Your task to perform on an android device: see creations saved in the google photos Image 0: 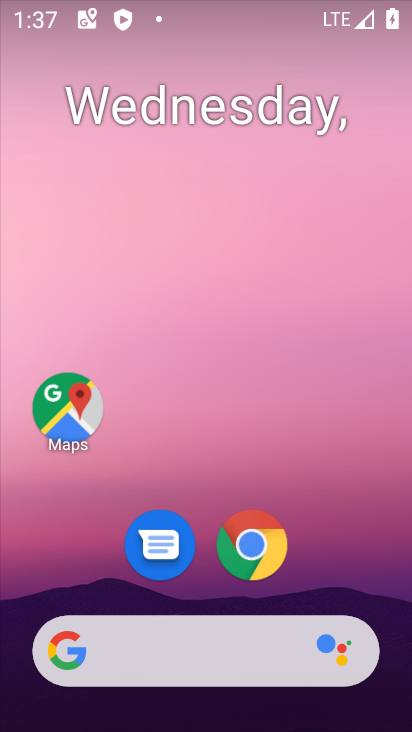
Step 0: drag from (347, 575) to (314, 169)
Your task to perform on an android device: see creations saved in the google photos Image 1: 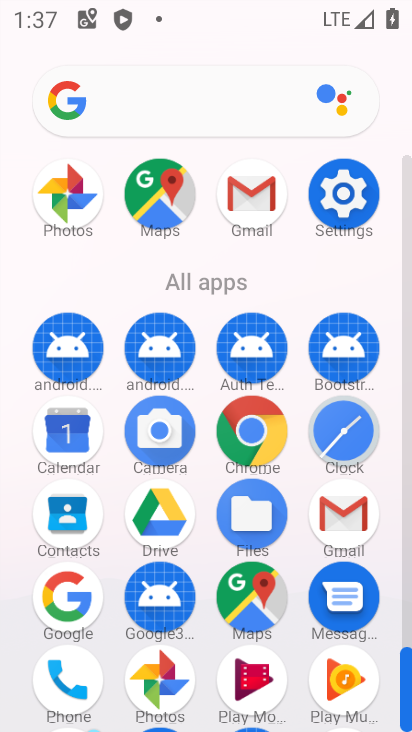
Step 1: click (163, 682)
Your task to perform on an android device: see creations saved in the google photos Image 2: 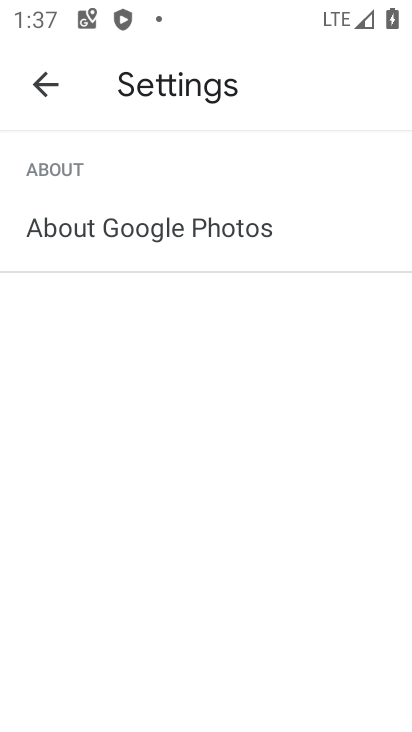
Step 2: click (41, 79)
Your task to perform on an android device: see creations saved in the google photos Image 3: 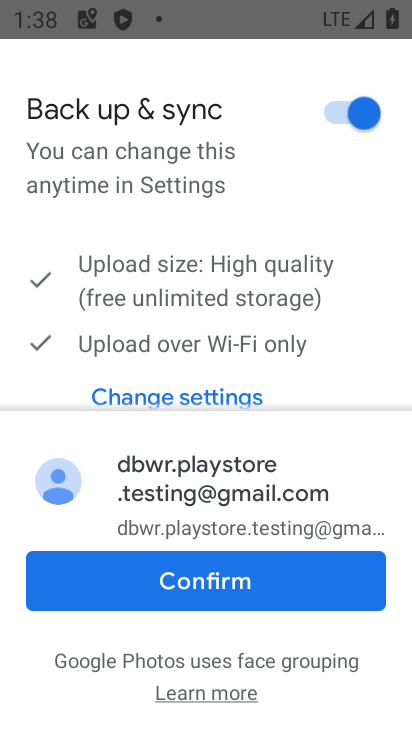
Step 3: click (195, 591)
Your task to perform on an android device: see creations saved in the google photos Image 4: 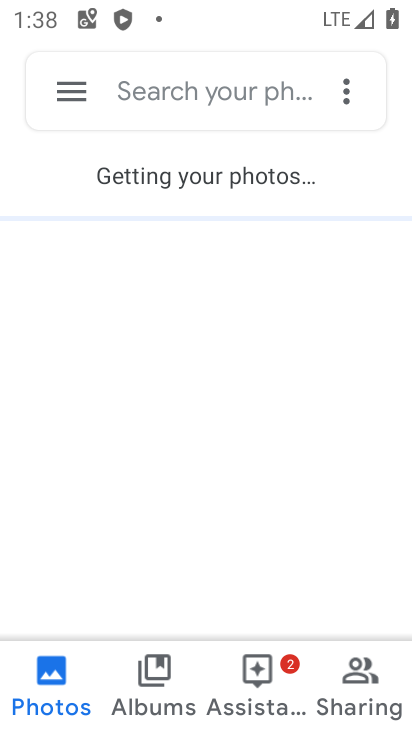
Step 4: click (285, 684)
Your task to perform on an android device: see creations saved in the google photos Image 5: 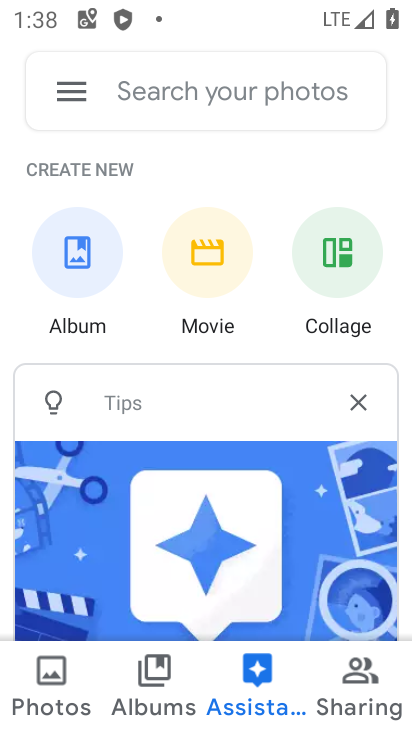
Step 5: drag from (315, 290) to (69, 276)
Your task to perform on an android device: see creations saved in the google photos Image 6: 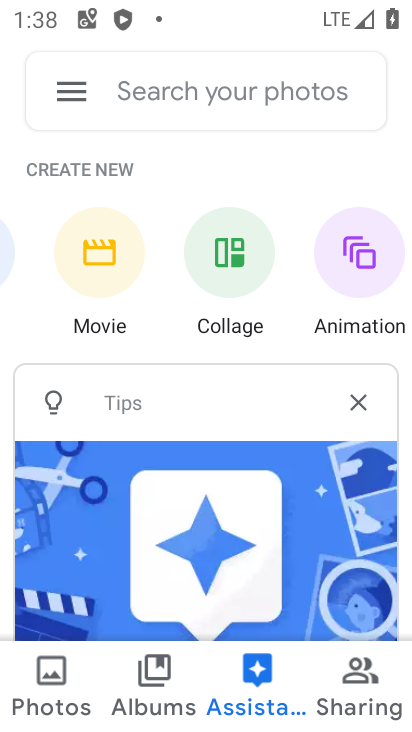
Step 6: drag from (341, 285) to (128, 286)
Your task to perform on an android device: see creations saved in the google photos Image 7: 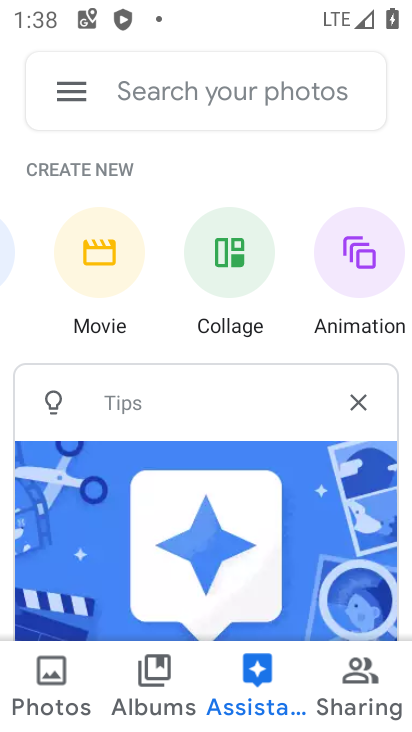
Step 7: click (368, 667)
Your task to perform on an android device: see creations saved in the google photos Image 8: 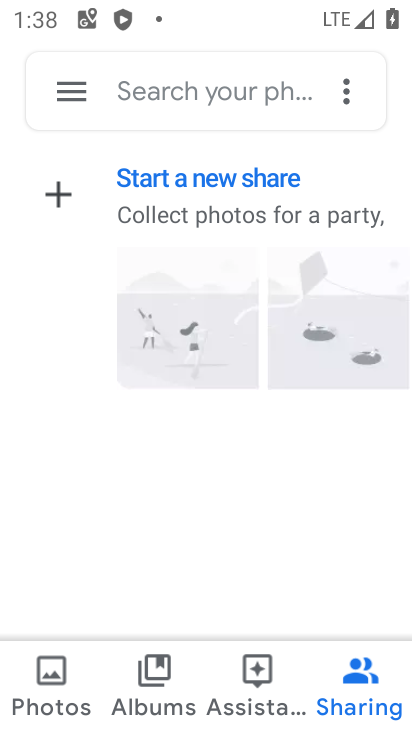
Step 8: click (247, 671)
Your task to perform on an android device: see creations saved in the google photos Image 9: 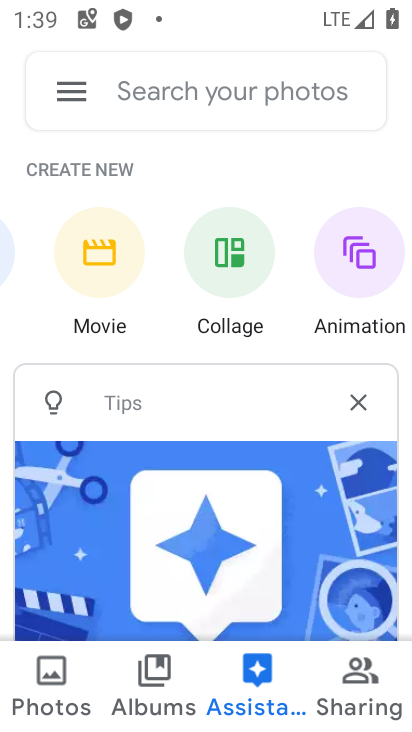
Step 9: task complete